Your task to perform on an android device: turn off smart reply in the gmail app Image 0: 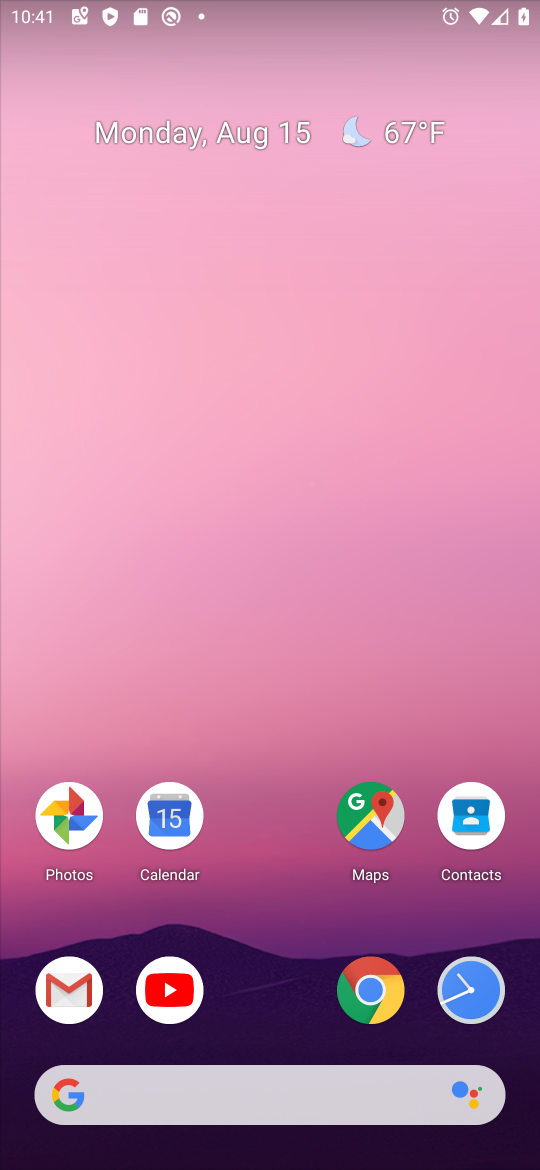
Step 0: click (70, 989)
Your task to perform on an android device: turn off smart reply in the gmail app Image 1: 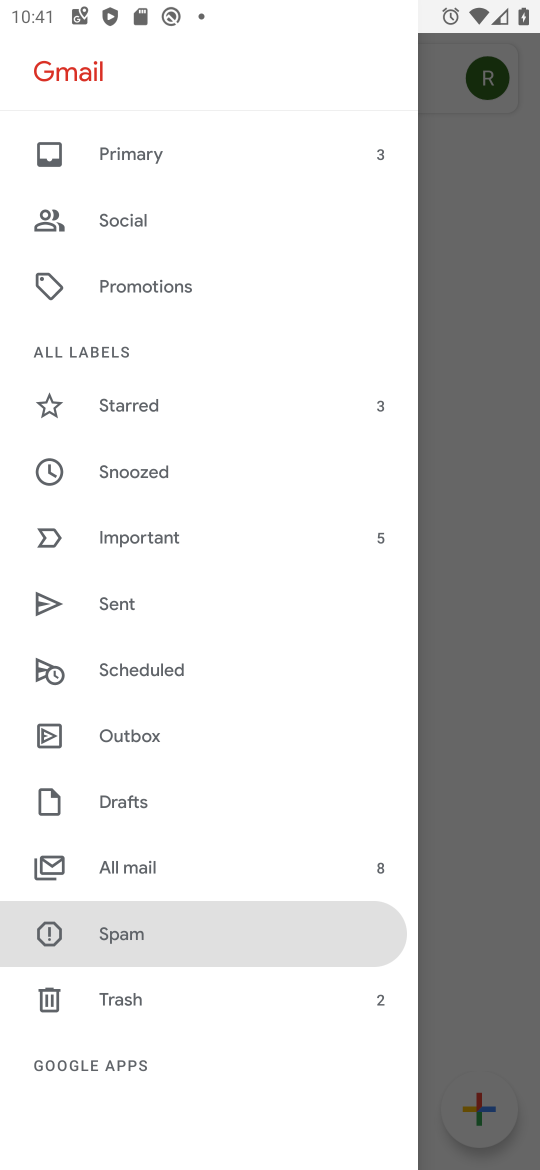
Step 1: drag from (187, 994) to (189, 357)
Your task to perform on an android device: turn off smart reply in the gmail app Image 2: 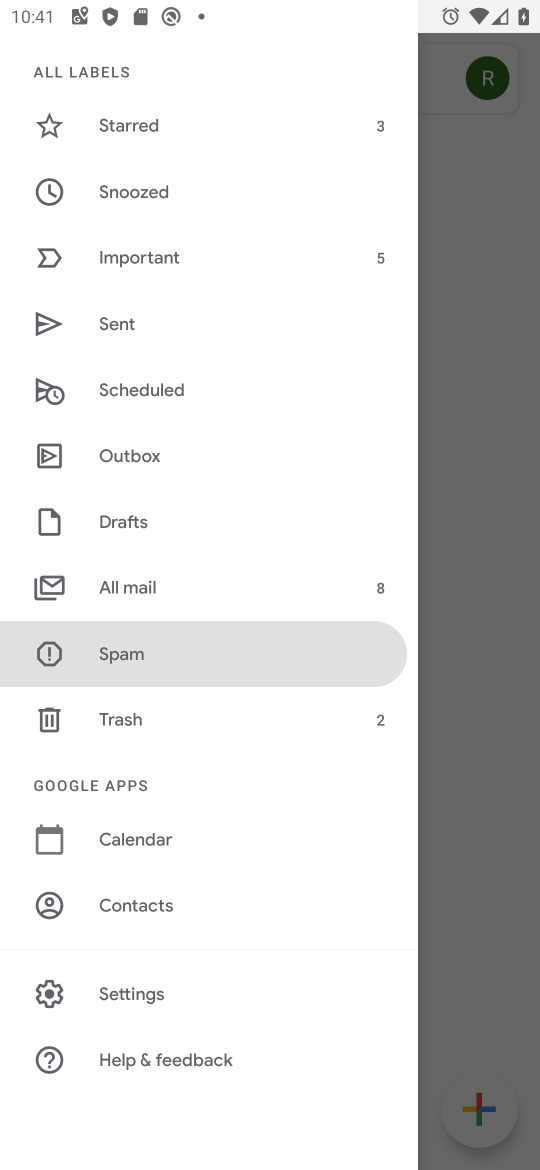
Step 2: click (114, 992)
Your task to perform on an android device: turn off smart reply in the gmail app Image 3: 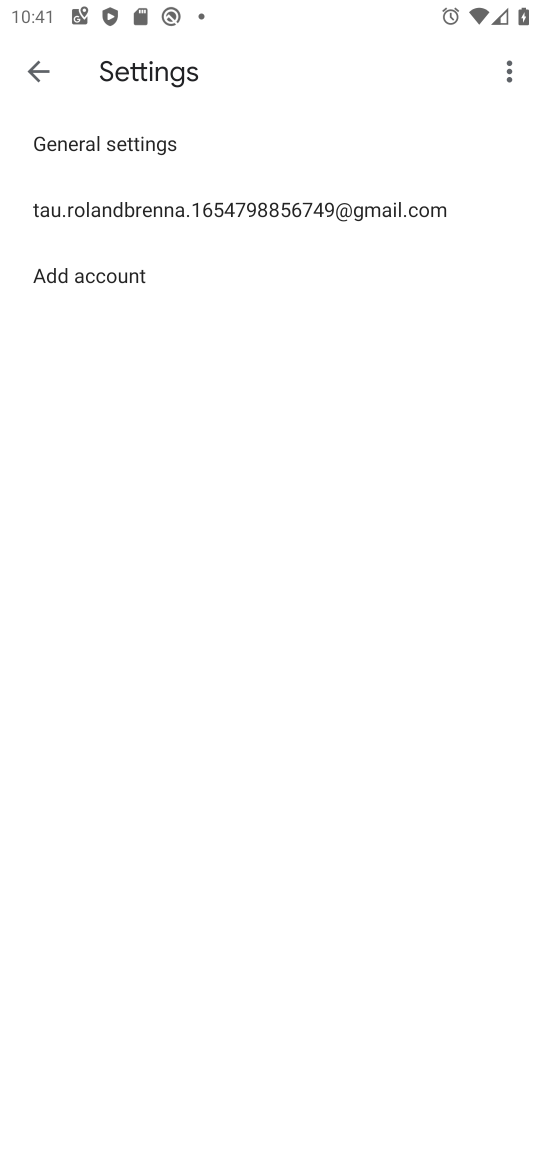
Step 3: click (139, 199)
Your task to perform on an android device: turn off smart reply in the gmail app Image 4: 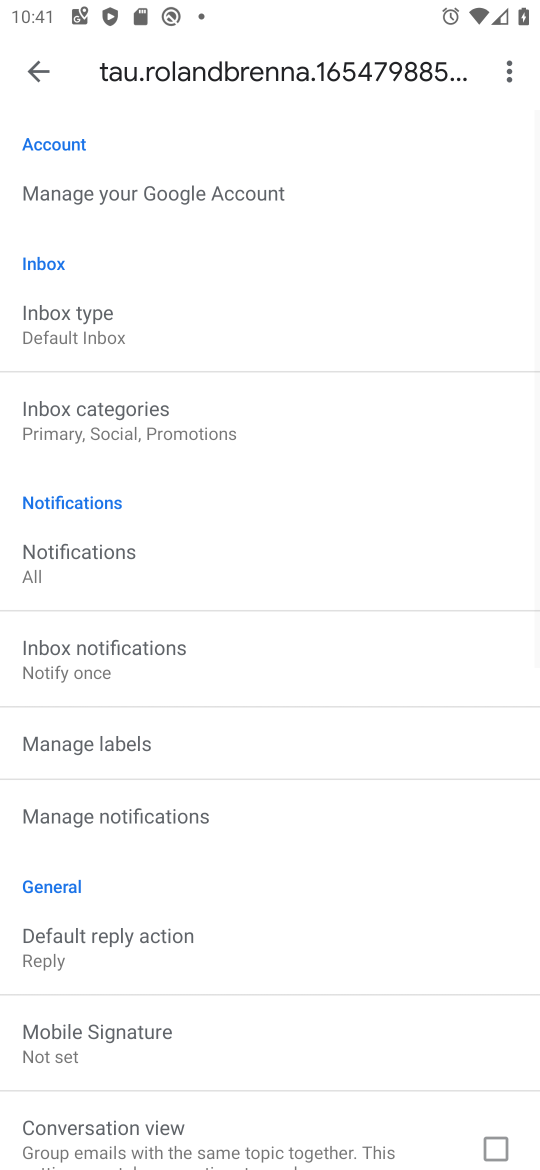
Step 4: drag from (284, 998) to (375, 204)
Your task to perform on an android device: turn off smart reply in the gmail app Image 5: 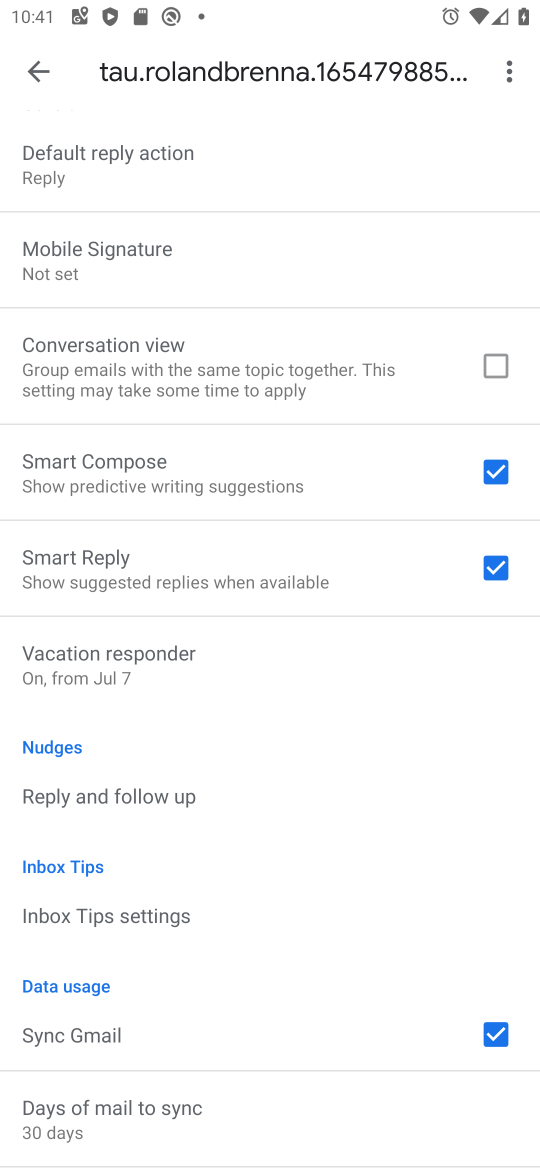
Step 5: click (496, 575)
Your task to perform on an android device: turn off smart reply in the gmail app Image 6: 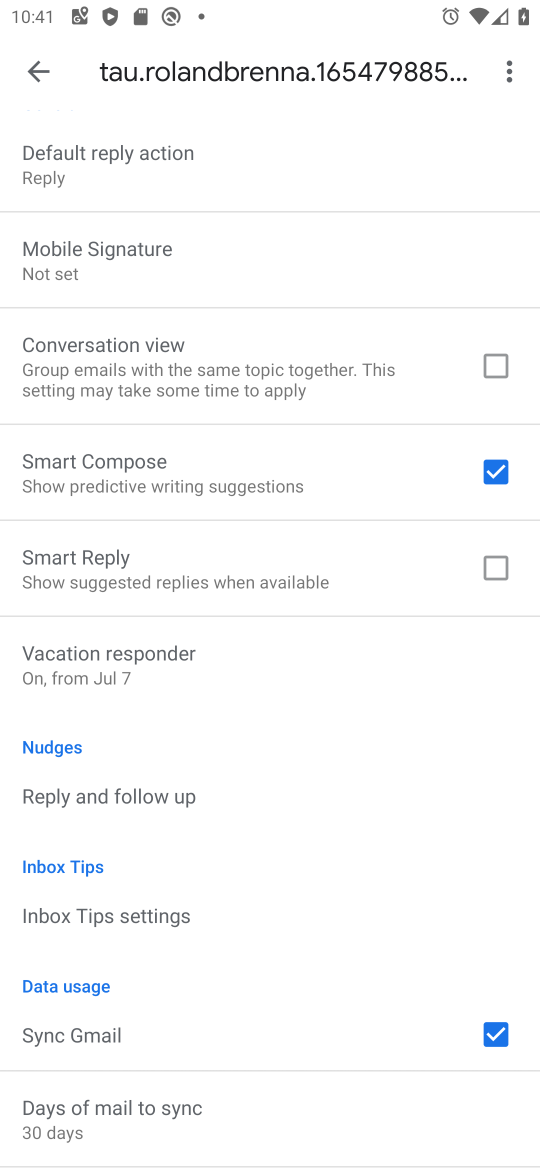
Step 6: task complete